Your task to perform on an android device: add a contact Image 0: 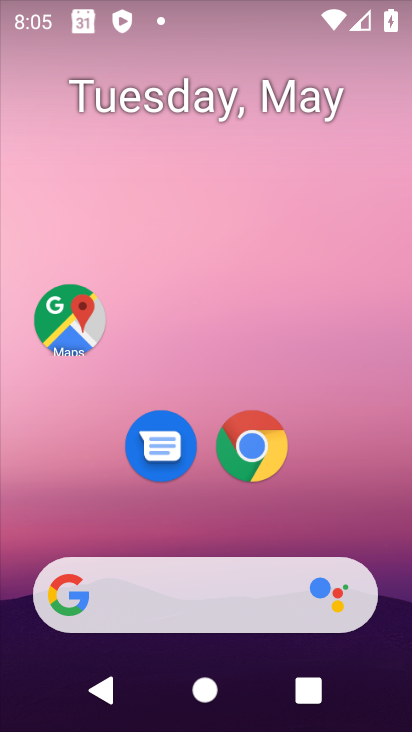
Step 0: drag from (323, 504) to (336, 0)
Your task to perform on an android device: add a contact Image 1: 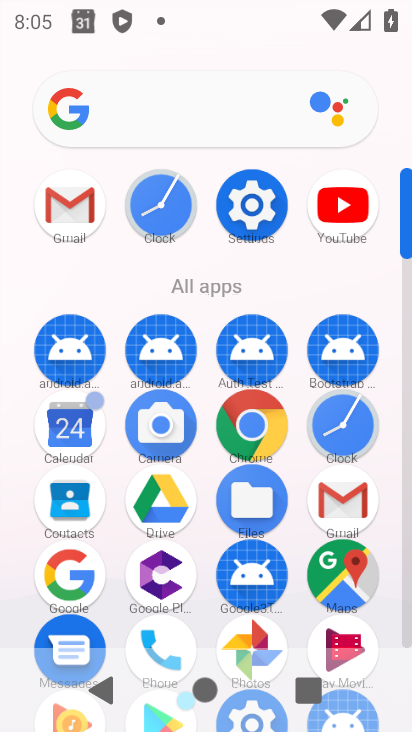
Step 1: click (67, 515)
Your task to perform on an android device: add a contact Image 2: 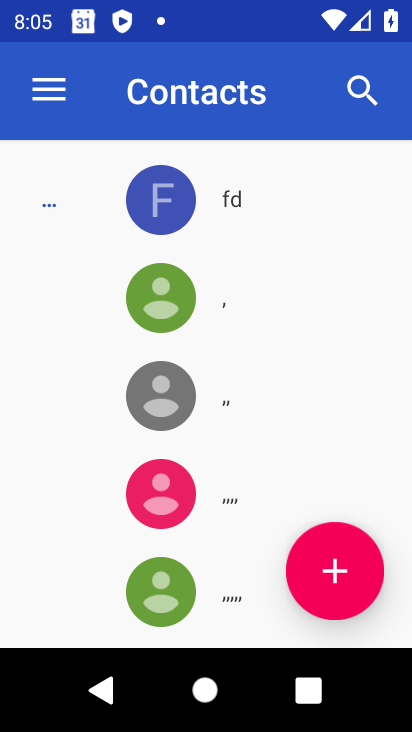
Step 2: click (334, 569)
Your task to perform on an android device: add a contact Image 3: 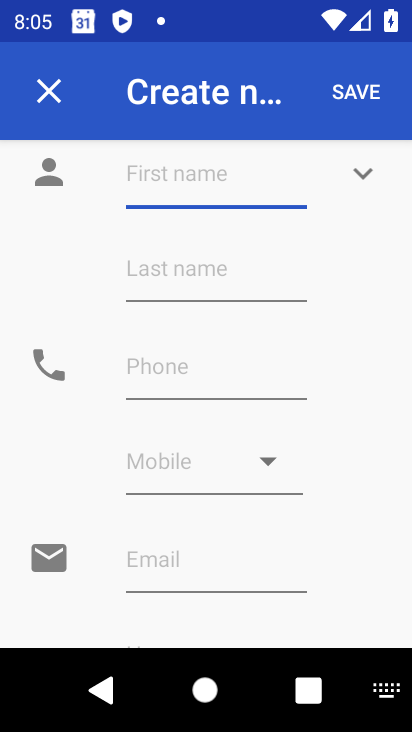
Step 3: type "rocky"
Your task to perform on an android device: add a contact Image 4: 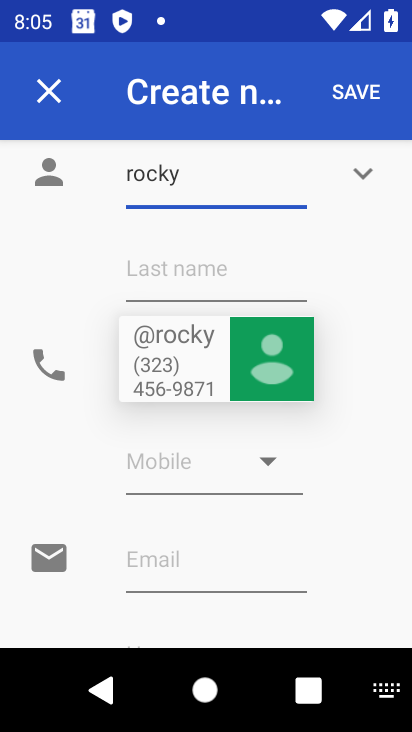
Step 4: click (337, 388)
Your task to perform on an android device: add a contact Image 5: 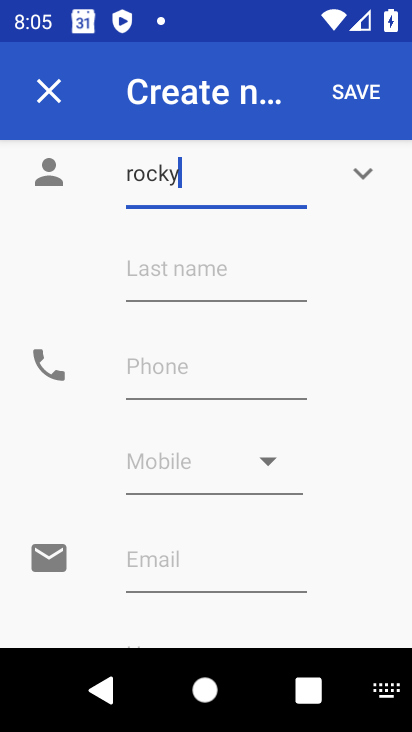
Step 5: click (161, 378)
Your task to perform on an android device: add a contact Image 6: 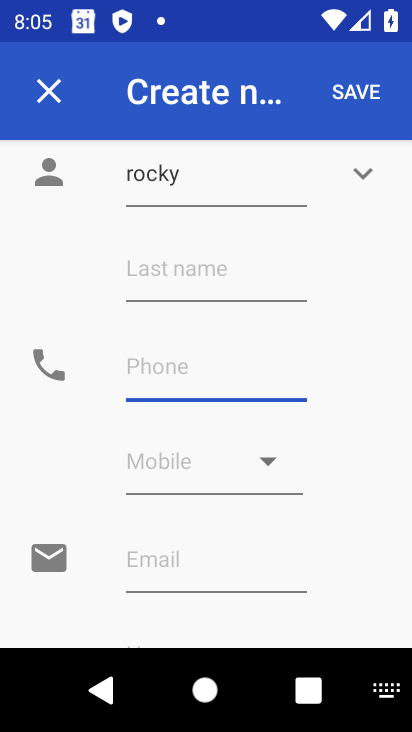
Step 6: type "987664757"
Your task to perform on an android device: add a contact Image 7: 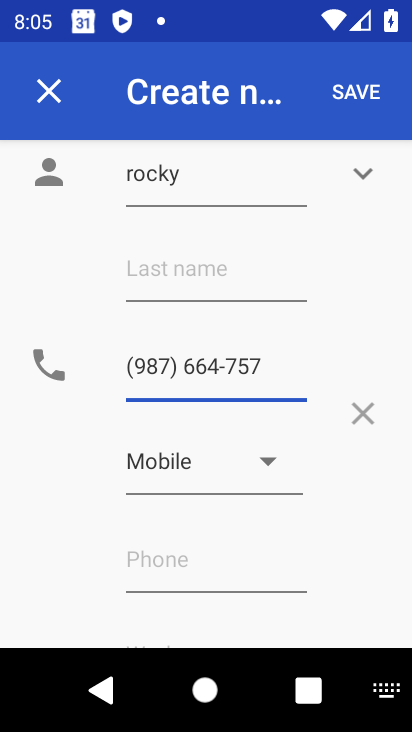
Step 7: click (345, 87)
Your task to perform on an android device: add a contact Image 8: 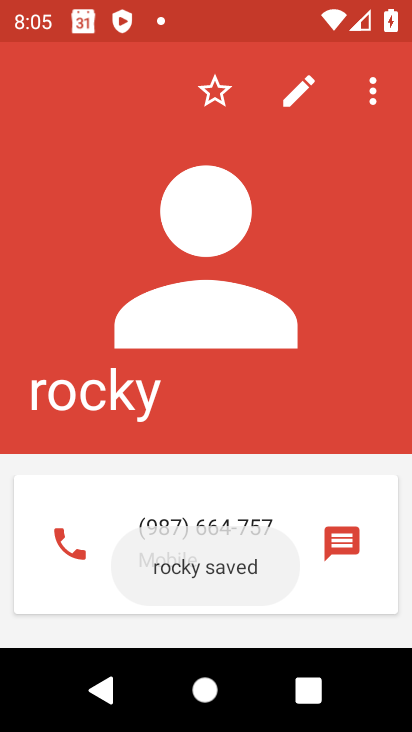
Step 8: task complete